Your task to perform on an android device: Check the weather Image 0: 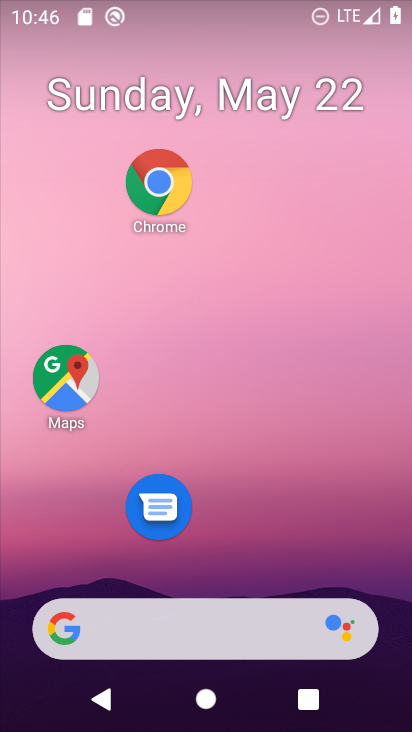
Step 0: click (250, 635)
Your task to perform on an android device: Check the weather Image 1: 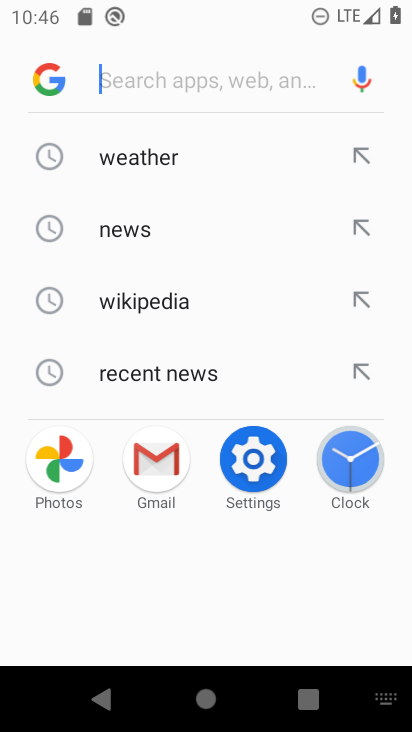
Step 1: click (205, 157)
Your task to perform on an android device: Check the weather Image 2: 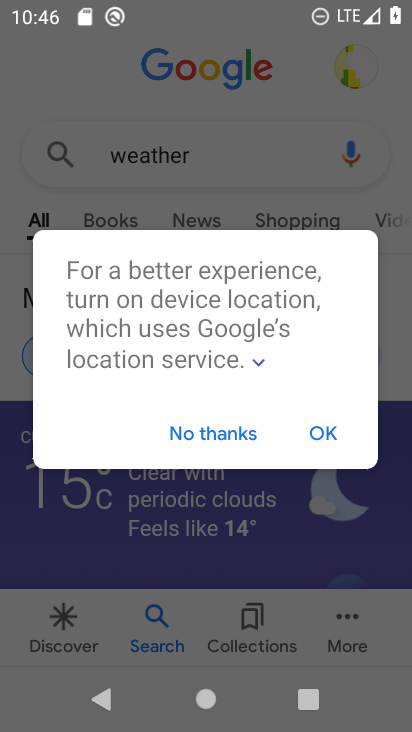
Step 2: click (231, 440)
Your task to perform on an android device: Check the weather Image 3: 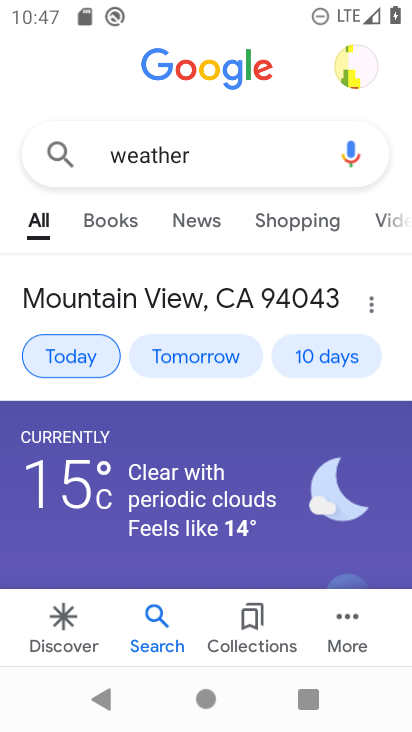
Step 3: task complete